Your task to perform on an android device: toggle airplane mode Image 0: 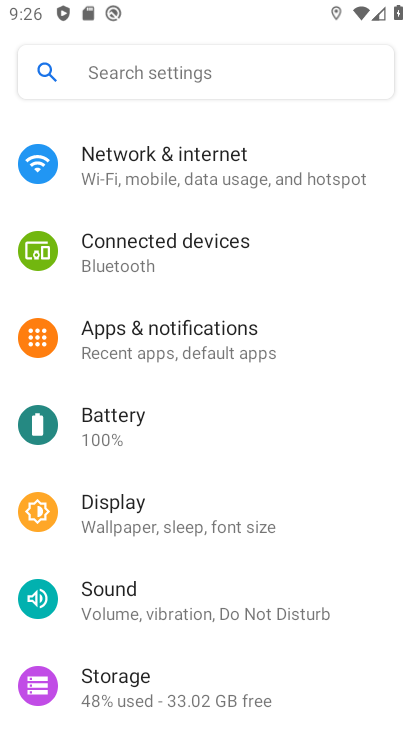
Step 0: drag from (297, 571) to (240, 670)
Your task to perform on an android device: toggle airplane mode Image 1: 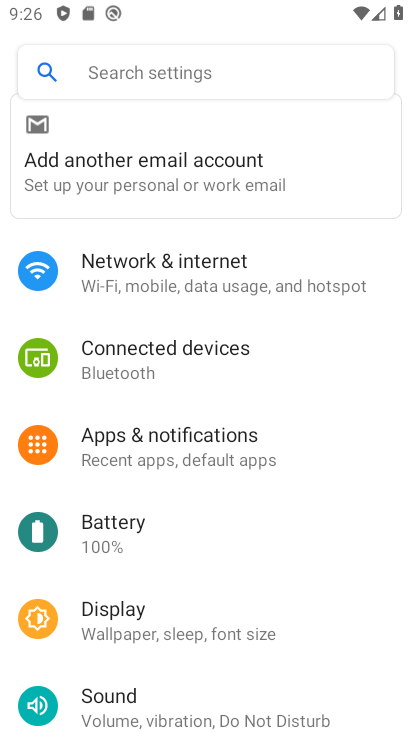
Step 1: click (158, 286)
Your task to perform on an android device: toggle airplane mode Image 2: 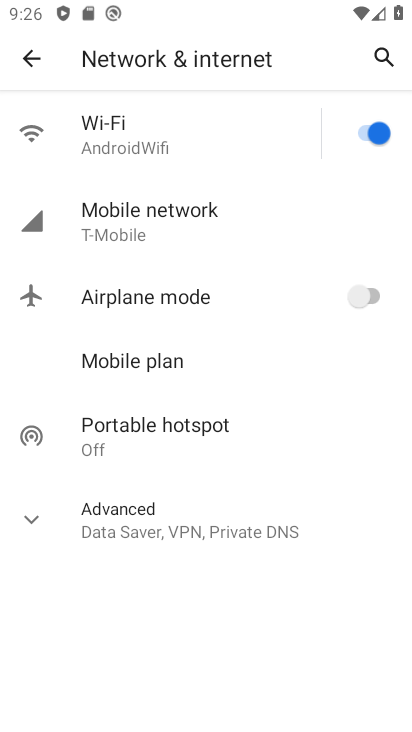
Step 2: click (341, 290)
Your task to perform on an android device: toggle airplane mode Image 3: 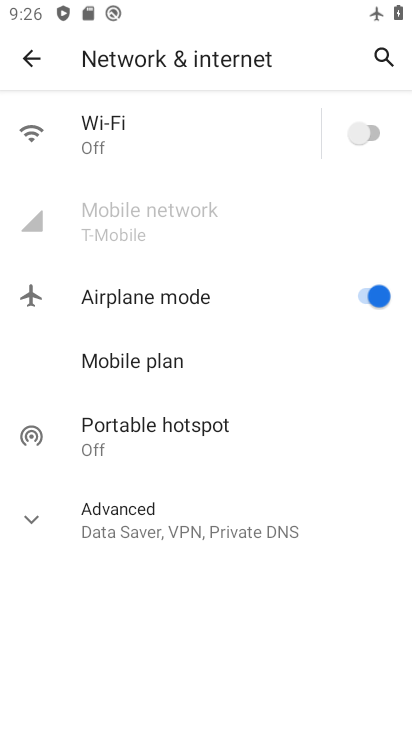
Step 3: task complete